Your task to perform on an android device: toggle priority inbox in the gmail app Image 0: 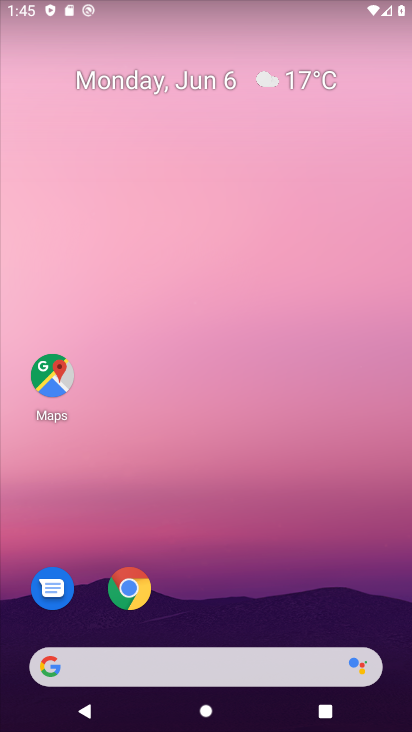
Step 0: drag from (204, 658) to (299, 81)
Your task to perform on an android device: toggle priority inbox in the gmail app Image 1: 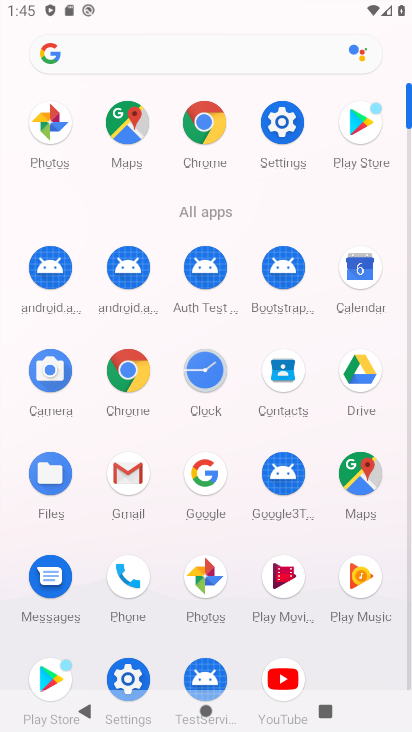
Step 1: click (134, 484)
Your task to perform on an android device: toggle priority inbox in the gmail app Image 2: 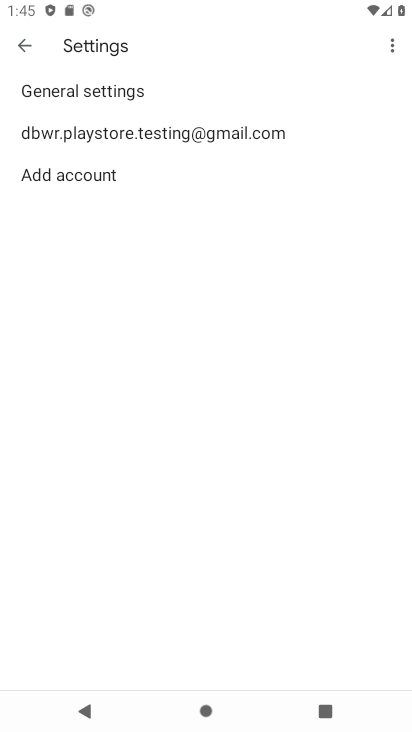
Step 2: click (209, 136)
Your task to perform on an android device: toggle priority inbox in the gmail app Image 3: 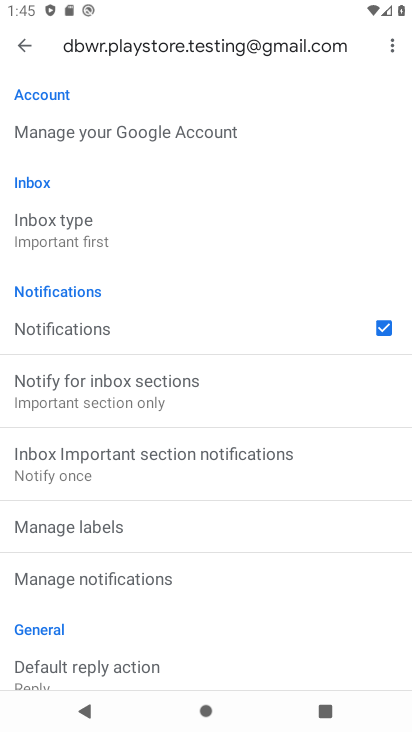
Step 3: click (84, 227)
Your task to perform on an android device: toggle priority inbox in the gmail app Image 4: 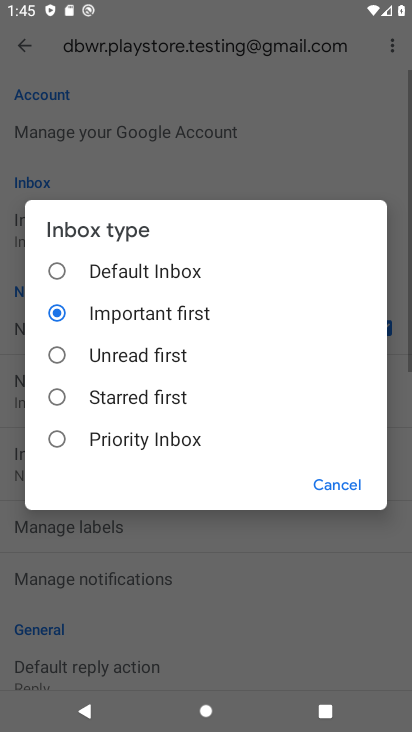
Step 4: click (106, 447)
Your task to perform on an android device: toggle priority inbox in the gmail app Image 5: 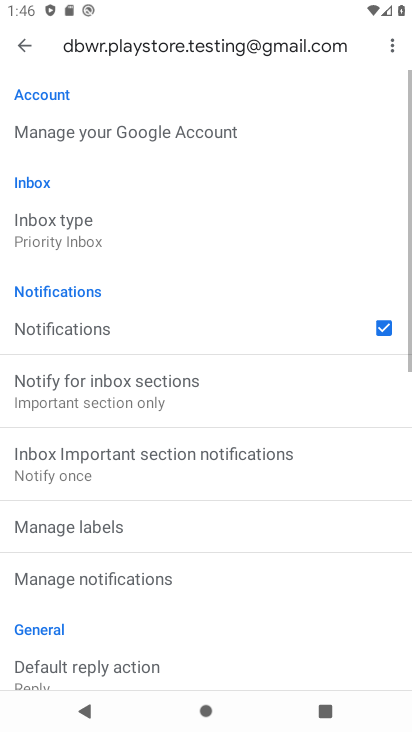
Step 5: task complete